Your task to perform on an android device: Add jbl charge 4 to the cart on costco.com Image 0: 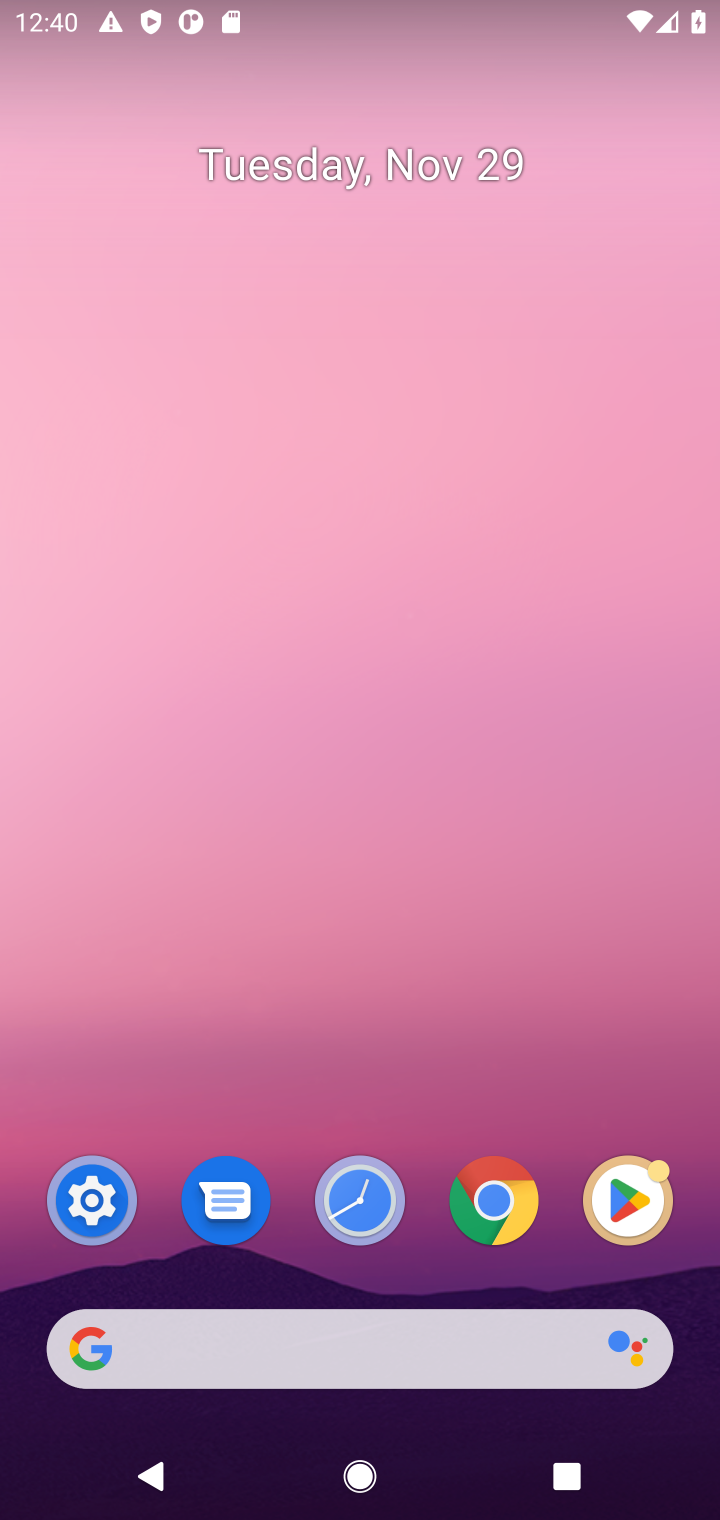
Step 0: click (355, 1327)
Your task to perform on an android device: Add jbl charge 4 to the cart on costco.com Image 1: 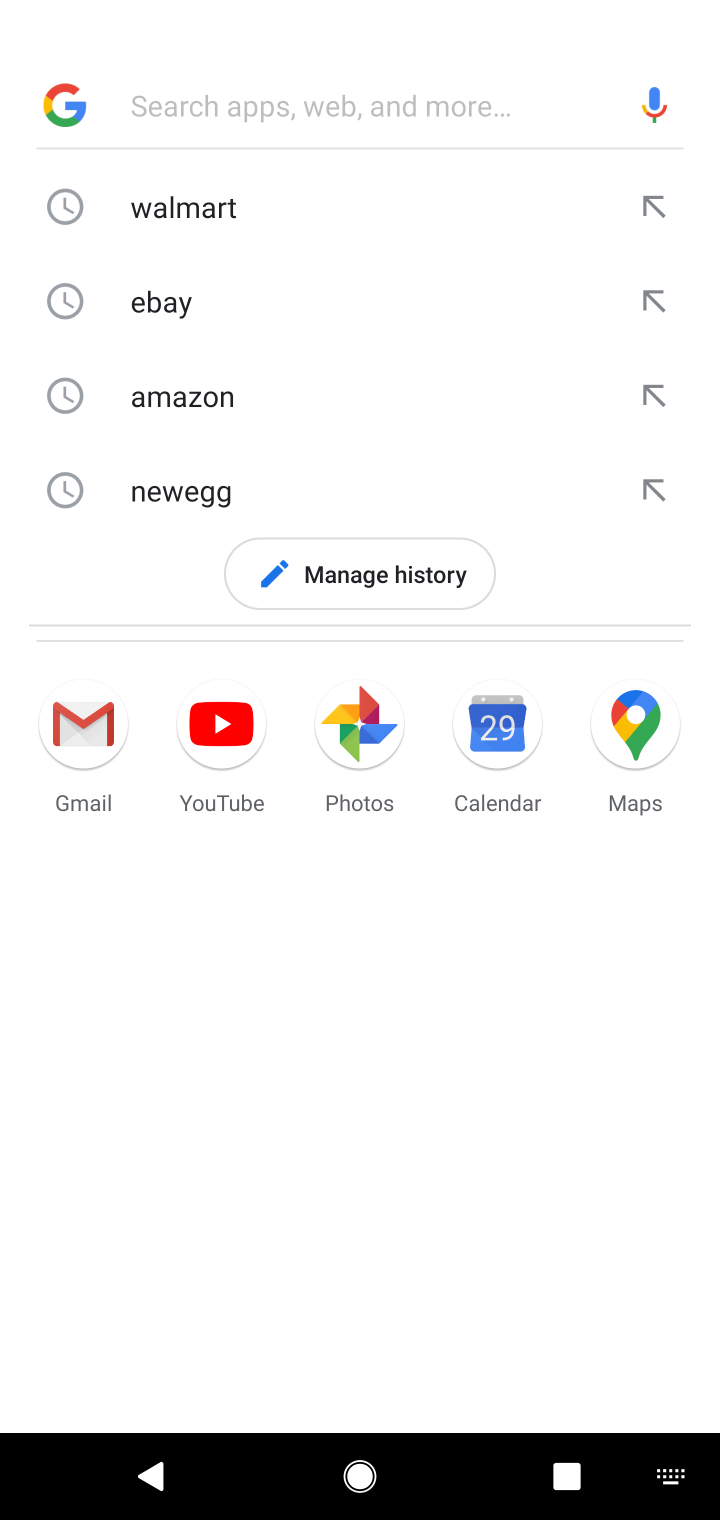
Step 1: type "costco.com"
Your task to perform on an android device: Add jbl charge 4 to the cart on costco.com Image 2: 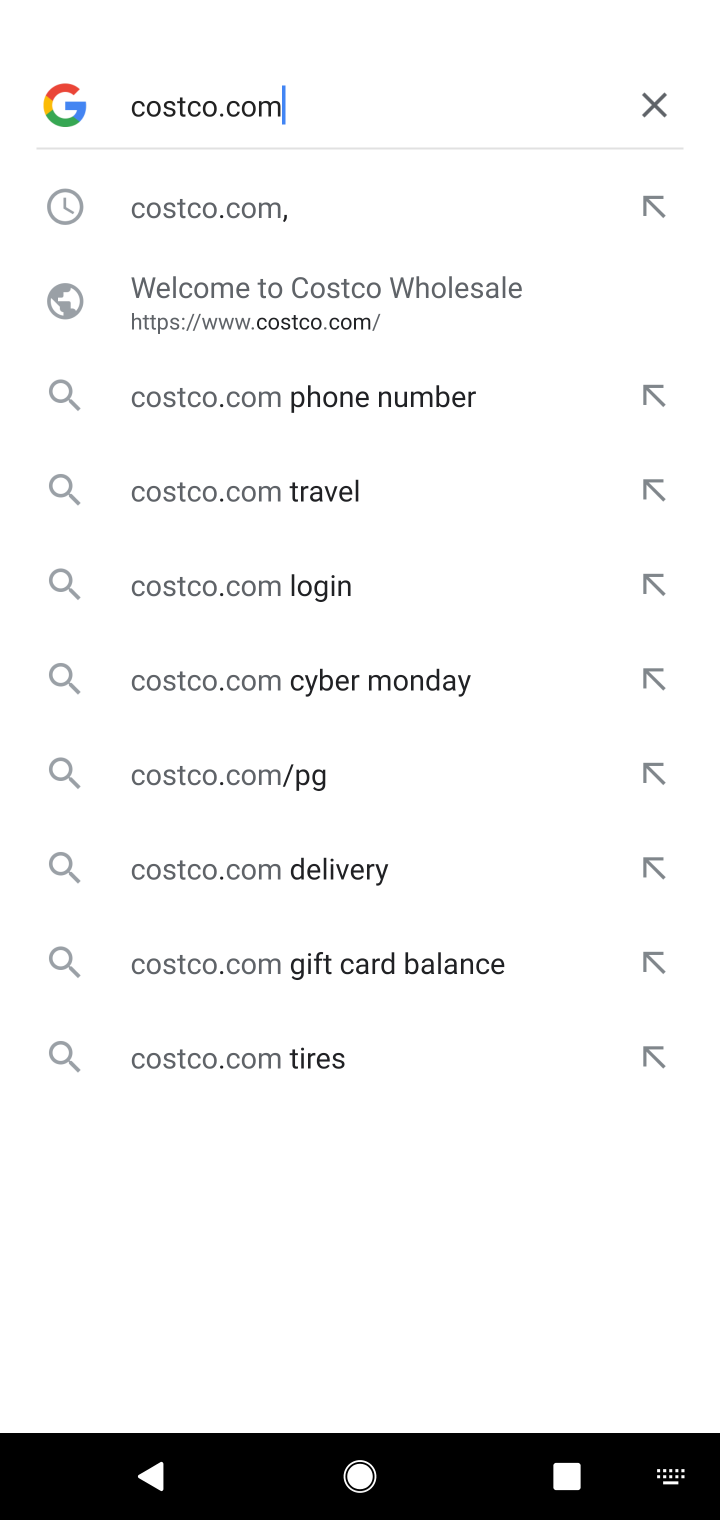
Step 2: click (254, 237)
Your task to perform on an android device: Add jbl charge 4 to the cart on costco.com Image 3: 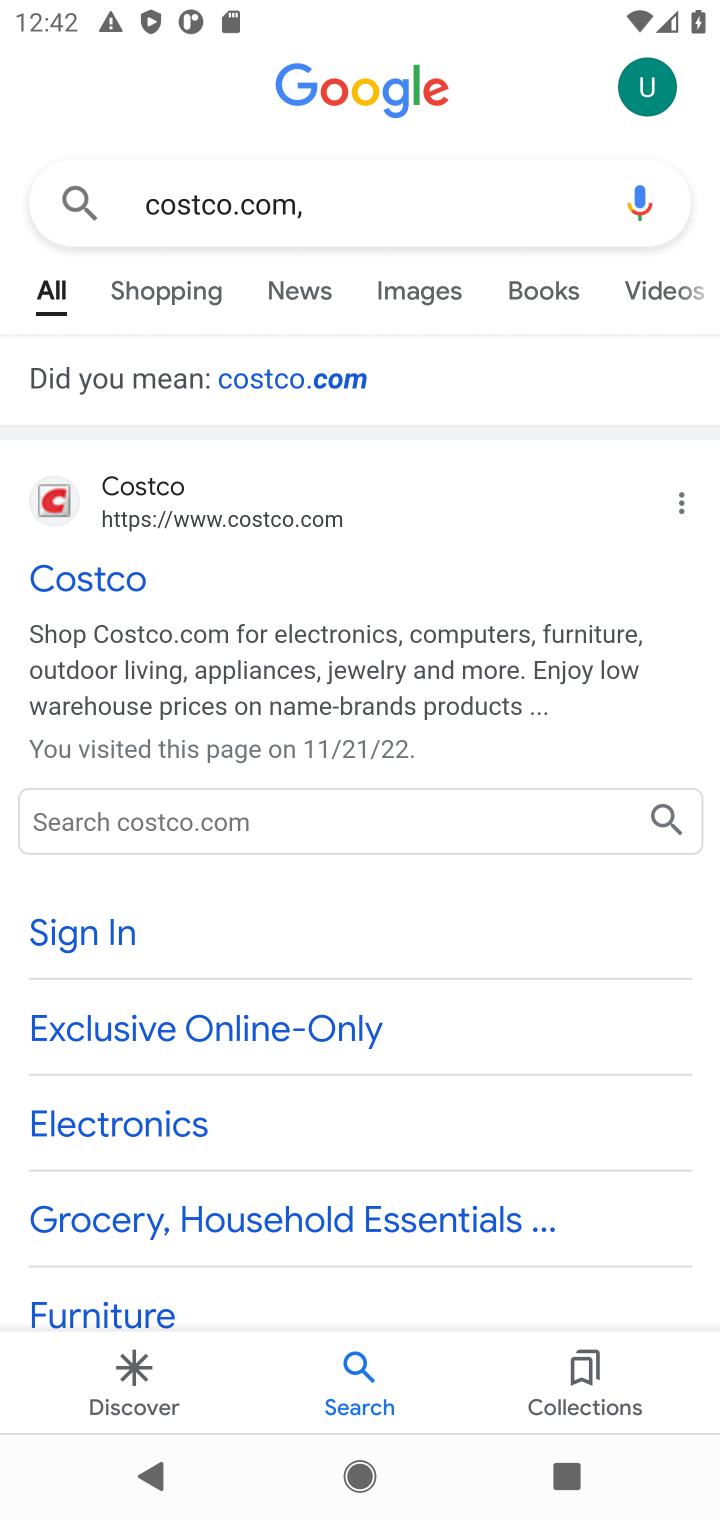
Step 3: click (52, 589)
Your task to perform on an android device: Add jbl charge 4 to the cart on costco.com Image 4: 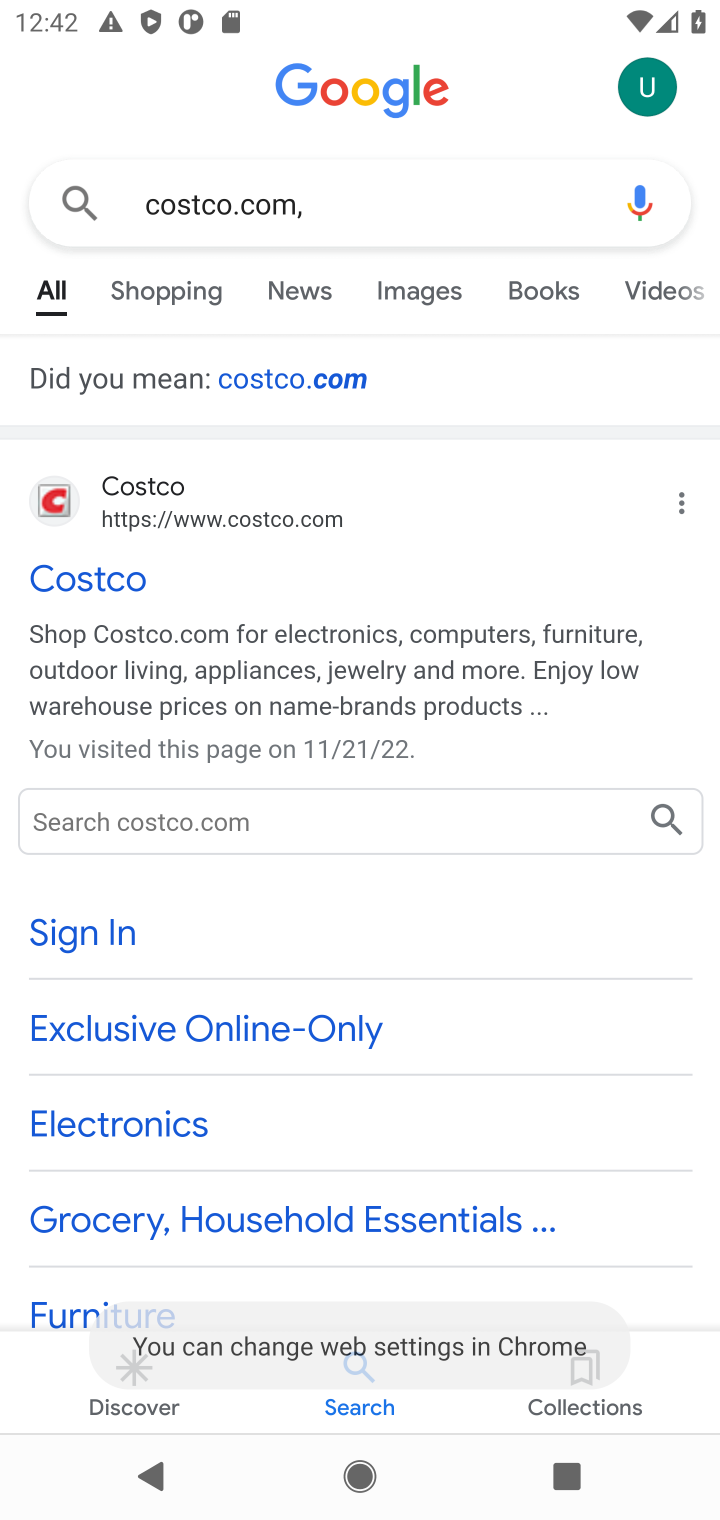
Step 4: task complete